Your task to perform on an android device: set default search engine in the chrome app Image 0: 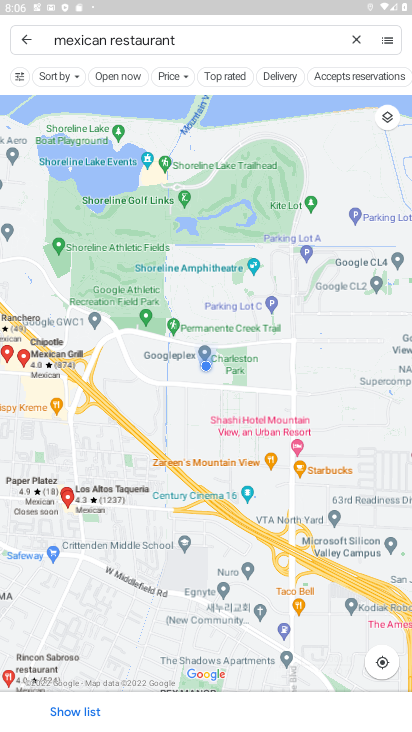
Step 0: click (21, 36)
Your task to perform on an android device: set default search engine in the chrome app Image 1: 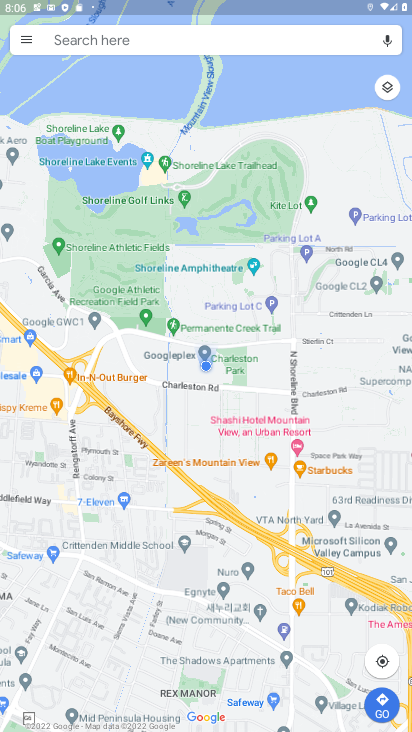
Step 1: press home button
Your task to perform on an android device: set default search engine in the chrome app Image 2: 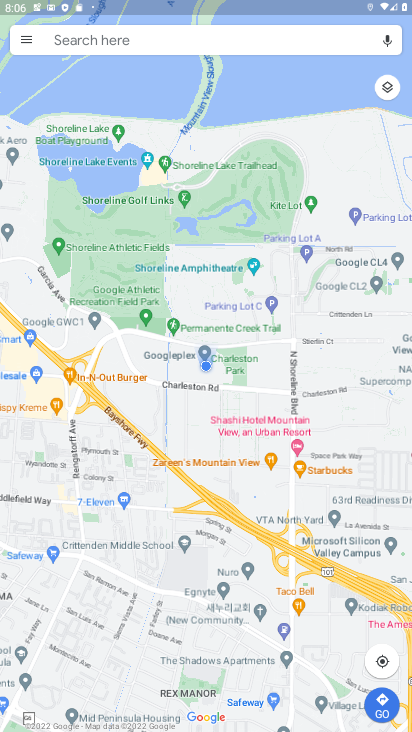
Step 2: press home button
Your task to perform on an android device: set default search engine in the chrome app Image 3: 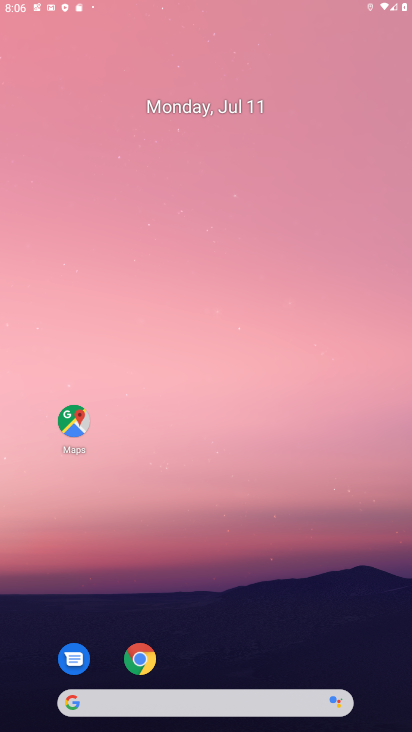
Step 3: press home button
Your task to perform on an android device: set default search engine in the chrome app Image 4: 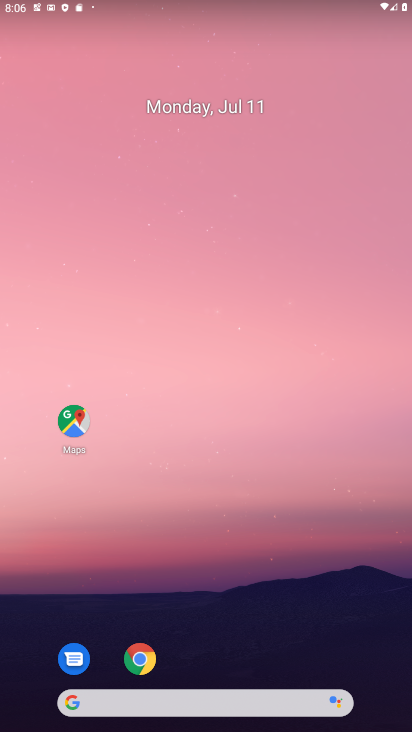
Step 4: drag from (218, 579) to (215, 272)
Your task to perform on an android device: set default search engine in the chrome app Image 5: 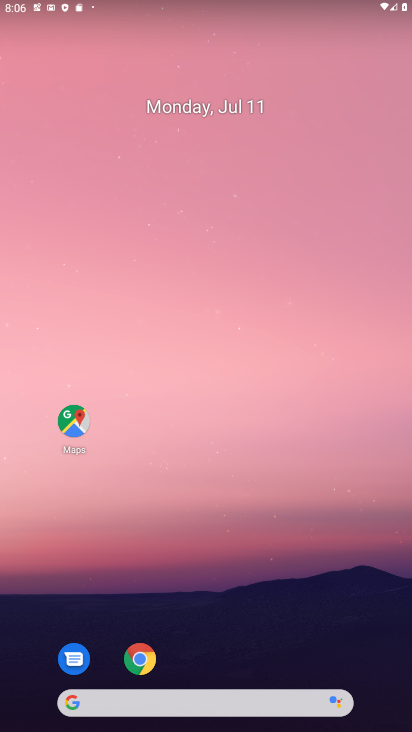
Step 5: drag from (172, 353) to (147, 197)
Your task to perform on an android device: set default search engine in the chrome app Image 6: 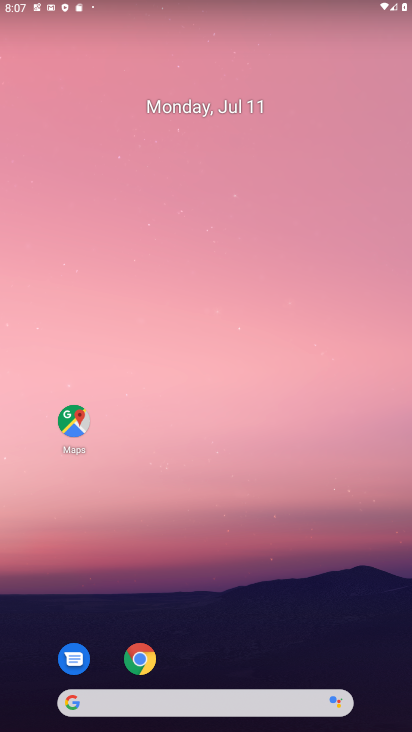
Step 6: click (146, 279)
Your task to perform on an android device: set default search engine in the chrome app Image 7: 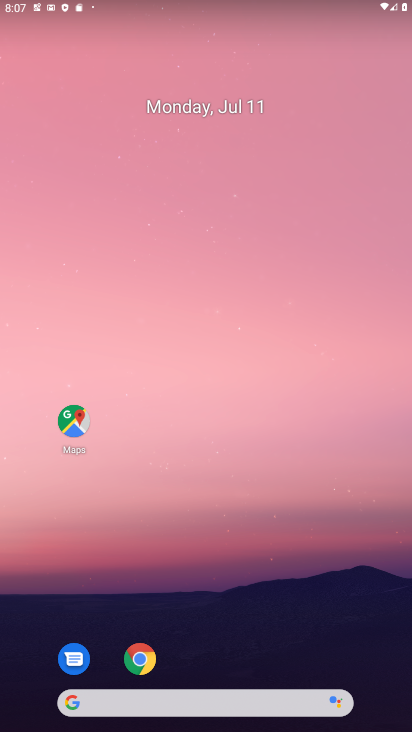
Step 7: drag from (222, 561) to (240, 131)
Your task to perform on an android device: set default search engine in the chrome app Image 8: 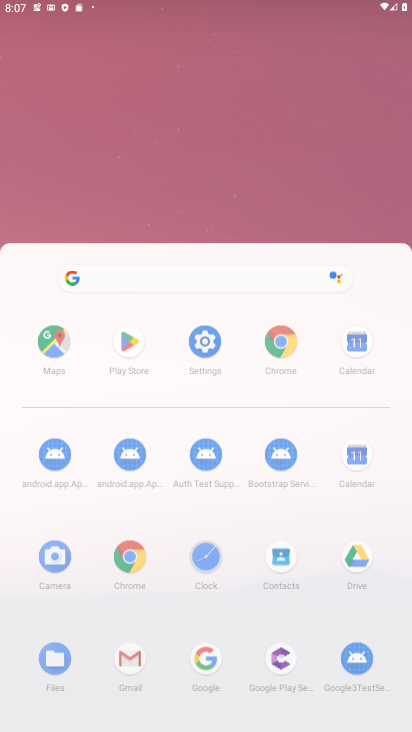
Step 8: drag from (188, 594) to (109, 201)
Your task to perform on an android device: set default search engine in the chrome app Image 9: 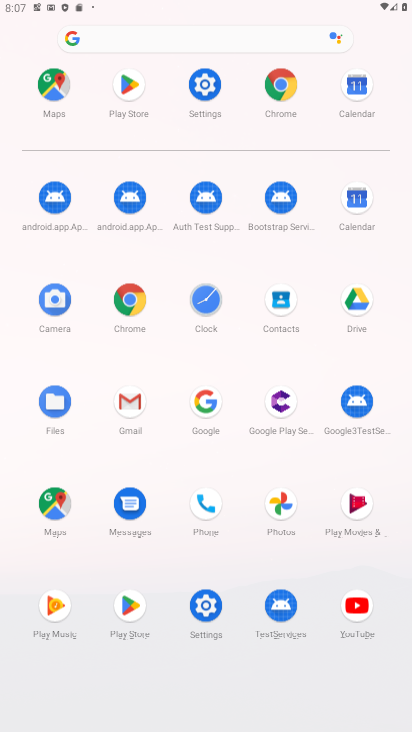
Step 9: drag from (192, 528) to (146, 176)
Your task to perform on an android device: set default search engine in the chrome app Image 10: 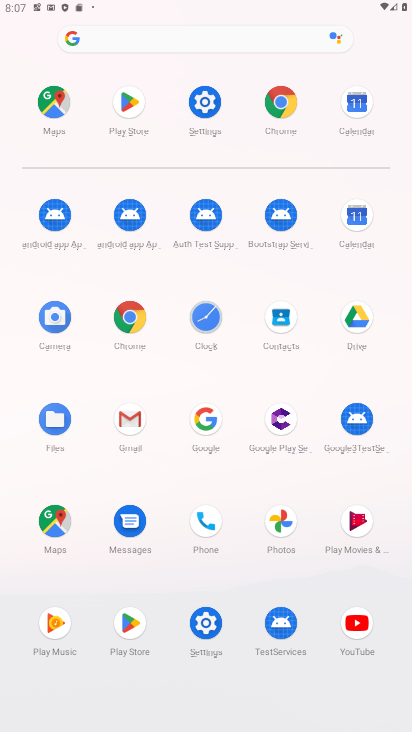
Step 10: click (132, 316)
Your task to perform on an android device: set default search engine in the chrome app Image 11: 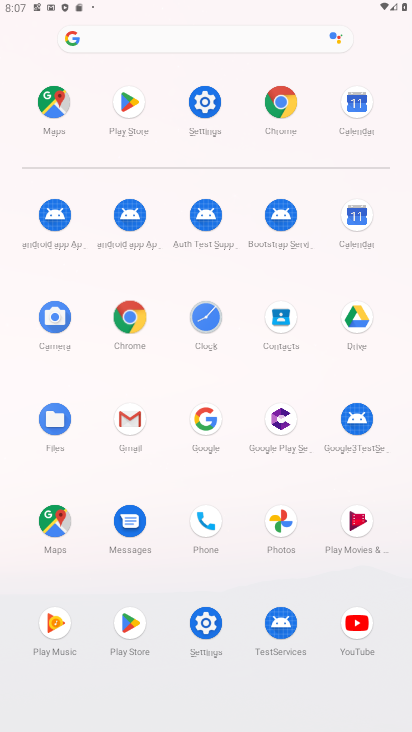
Step 11: click (137, 310)
Your task to perform on an android device: set default search engine in the chrome app Image 12: 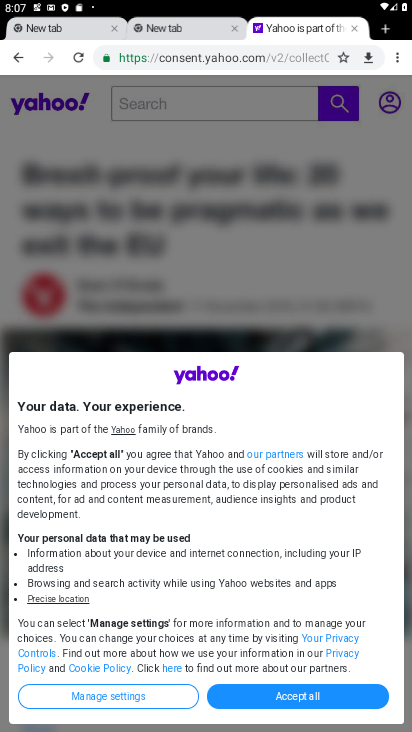
Step 12: click (395, 63)
Your task to perform on an android device: set default search engine in the chrome app Image 13: 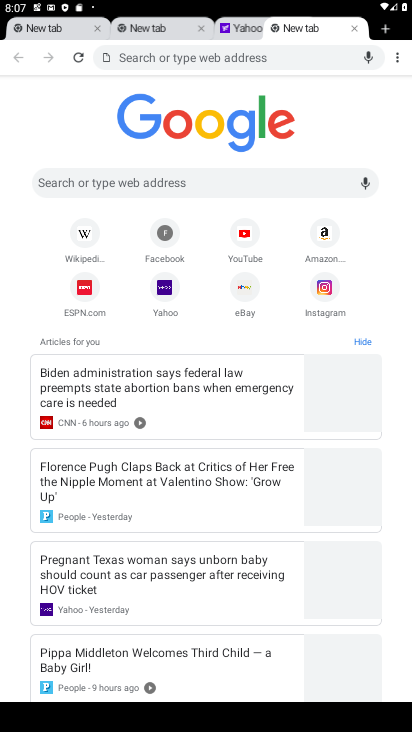
Step 13: drag from (395, 63) to (277, 261)
Your task to perform on an android device: set default search engine in the chrome app Image 14: 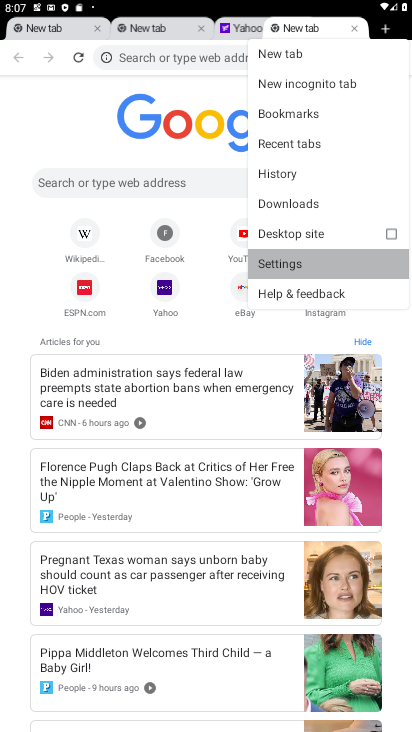
Step 14: click (274, 262)
Your task to perform on an android device: set default search engine in the chrome app Image 15: 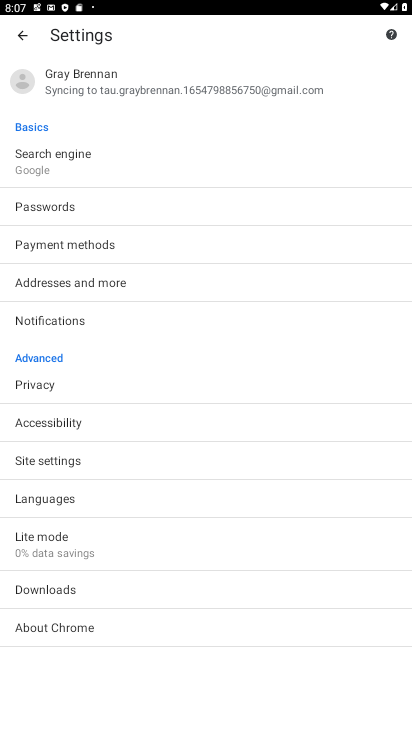
Step 15: click (47, 464)
Your task to perform on an android device: set default search engine in the chrome app Image 16: 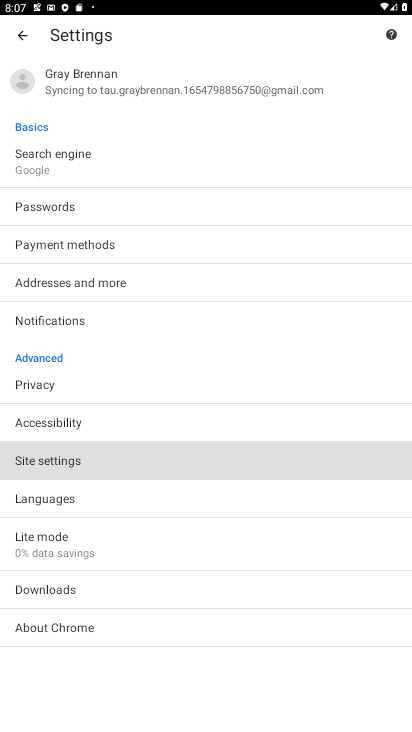
Step 16: click (41, 466)
Your task to perform on an android device: set default search engine in the chrome app Image 17: 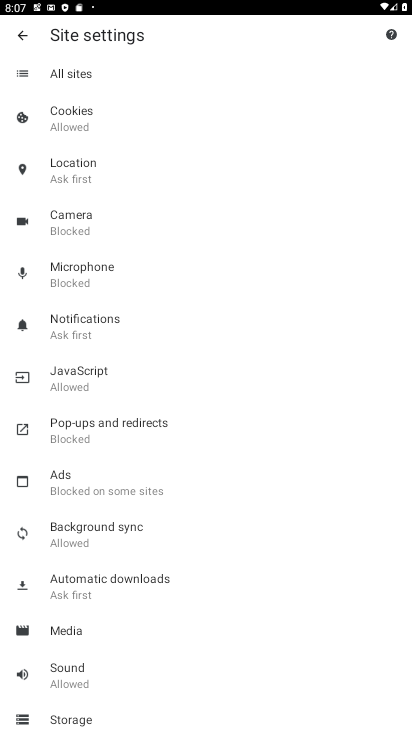
Step 17: drag from (121, 545) to (70, 170)
Your task to perform on an android device: set default search engine in the chrome app Image 18: 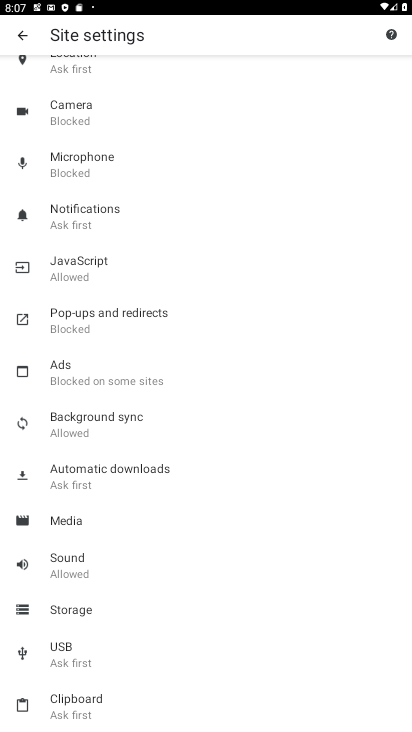
Step 18: click (23, 36)
Your task to perform on an android device: set default search engine in the chrome app Image 19: 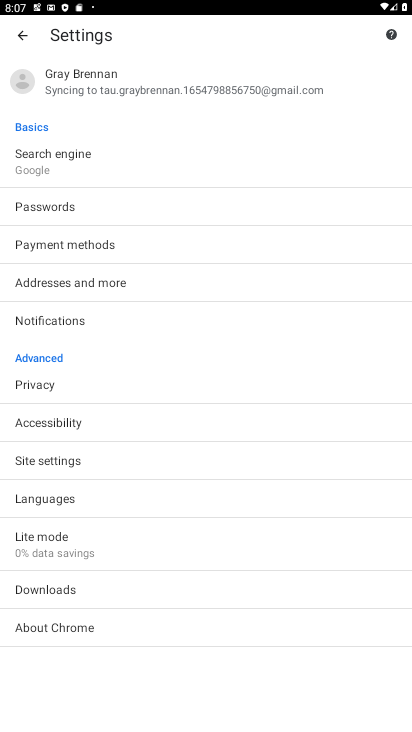
Step 19: click (41, 165)
Your task to perform on an android device: set default search engine in the chrome app Image 20: 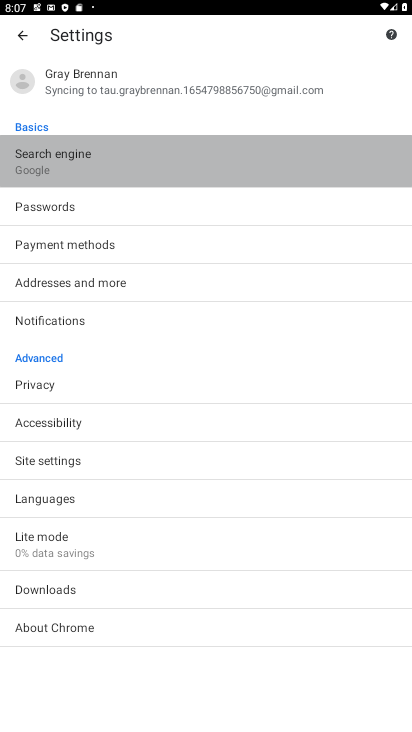
Step 20: click (37, 160)
Your task to perform on an android device: set default search engine in the chrome app Image 21: 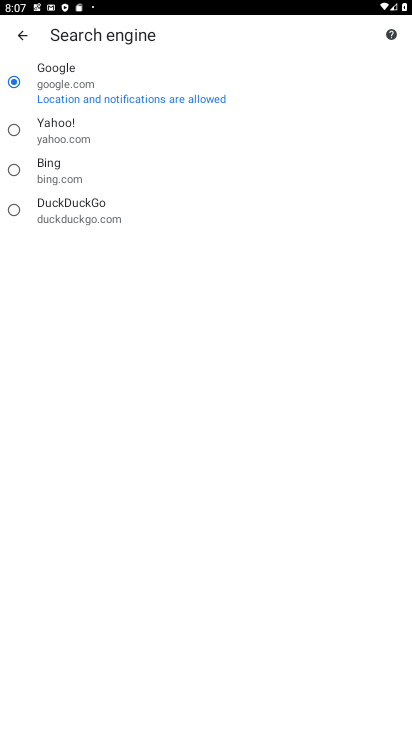
Step 21: click (16, 125)
Your task to perform on an android device: set default search engine in the chrome app Image 22: 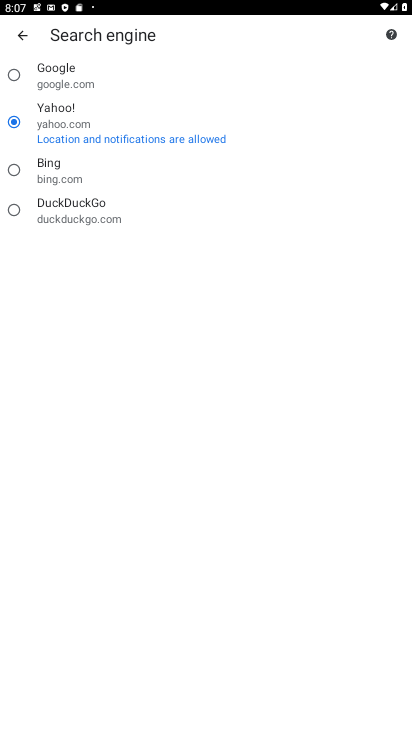
Step 22: task complete